Your task to perform on an android device: Open network settings Image 0: 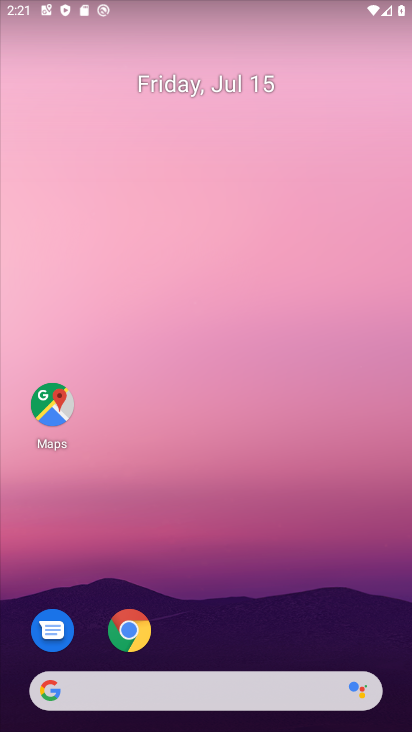
Step 0: press home button
Your task to perform on an android device: Open network settings Image 1: 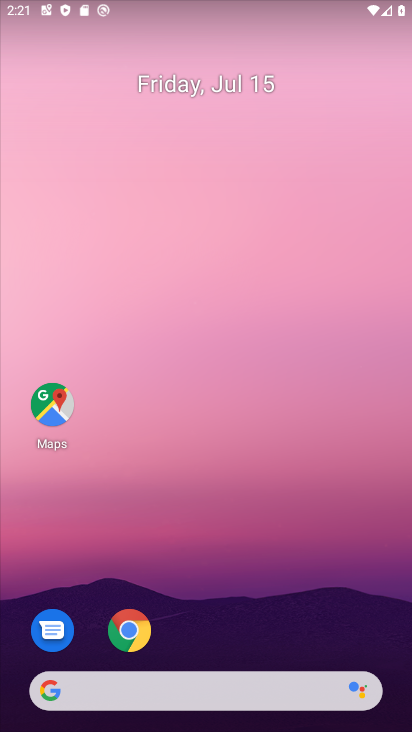
Step 1: drag from (293, 623) to (264, 94)
Your task to perform on an android device: Open network settings Image 2: 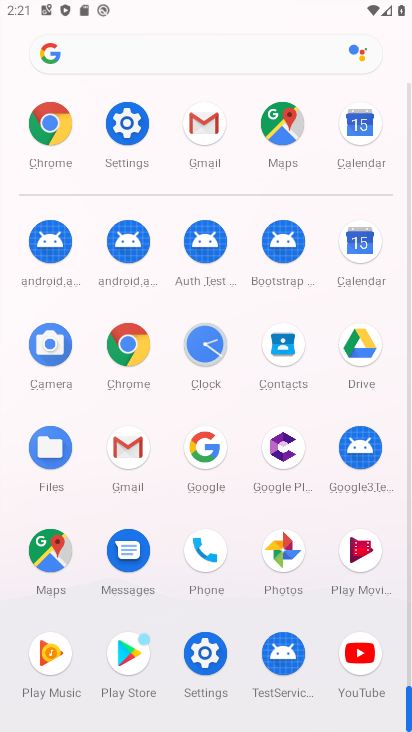
Step 2: click (117, 123)
Your task to perform on an android device: Open network settings Image 3: 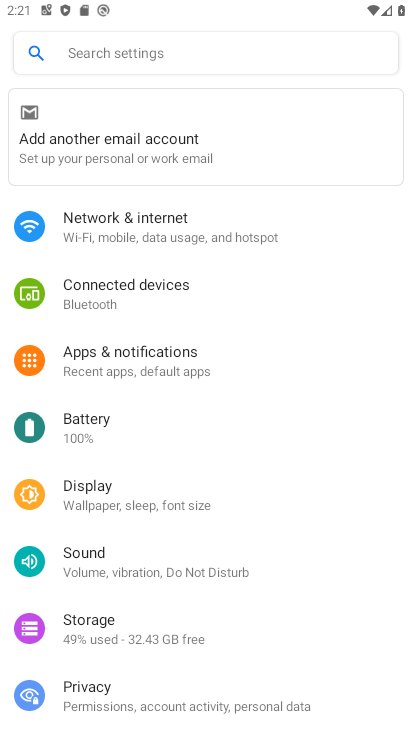
Step 3: click (148, 231)
Your task to perform on an android device: Open network settings Image 4: 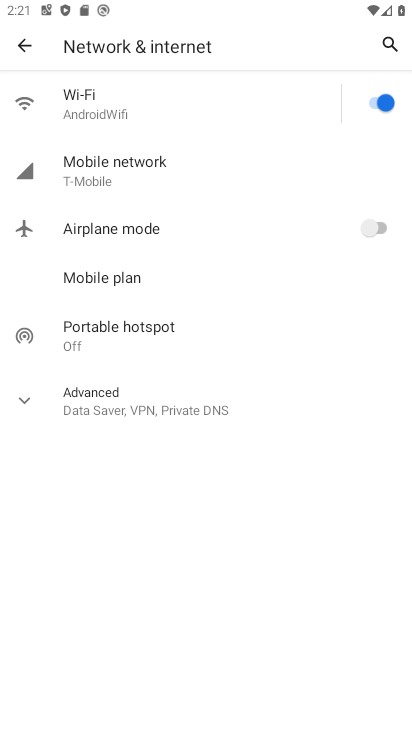
Step 4: click (102, 186)
Your task to perform on an android device: Open network settings Image 5: 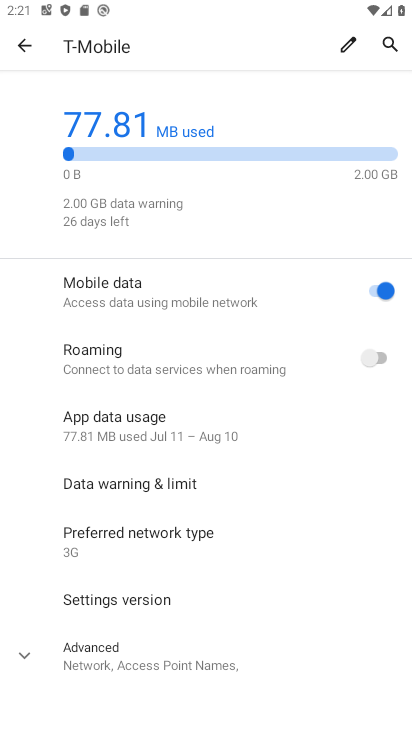
Step 5: task complete